Your task to perform on an android device: turn on the 24-hour format for clock Image 0: 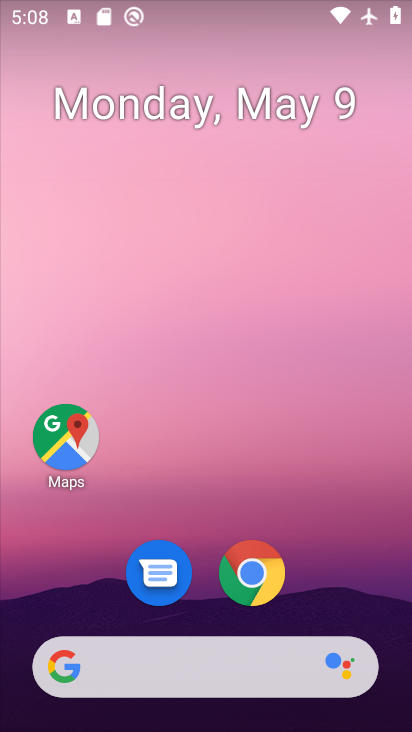
Step 0: drag from (394, 636) to (361, 70)
Your task to perform on an android device: turn on the 24-hour format for clock Image 1: 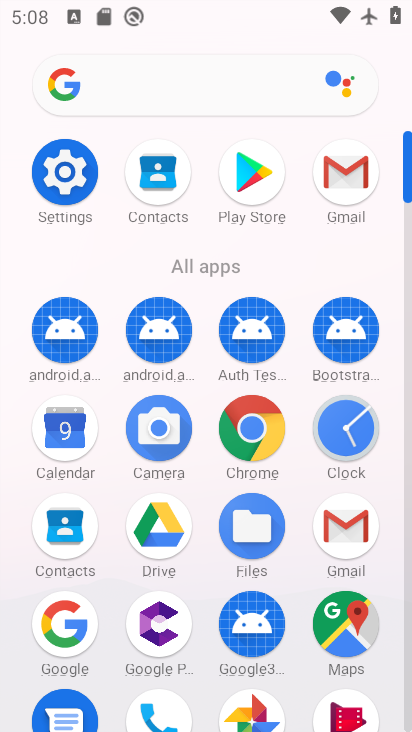
Step 1: click (406, 696)
Your task to perform on an android device: turn on the 24-hour format for clock Image 2: 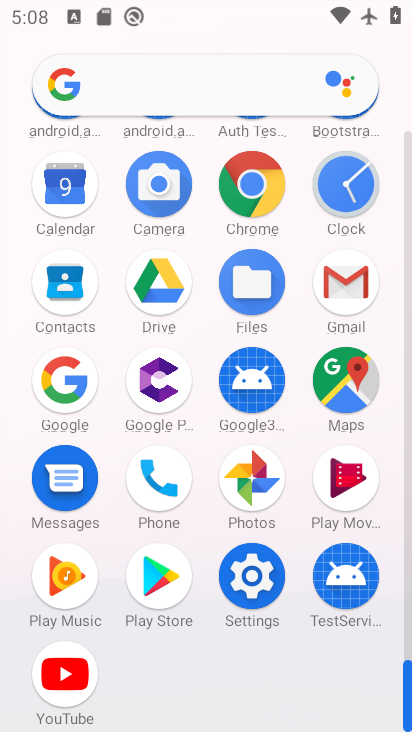
Step 2: click (340, 184)
Your task to perform on an android device: turn on the 24-hour format for clock Image 3: 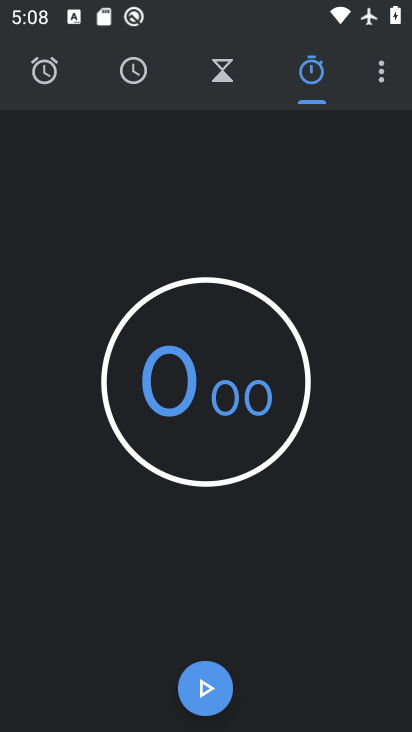
Step 3: click (380, 73)
Your task to perform on an android device: turn on the 24-hour format for clock Image 4: 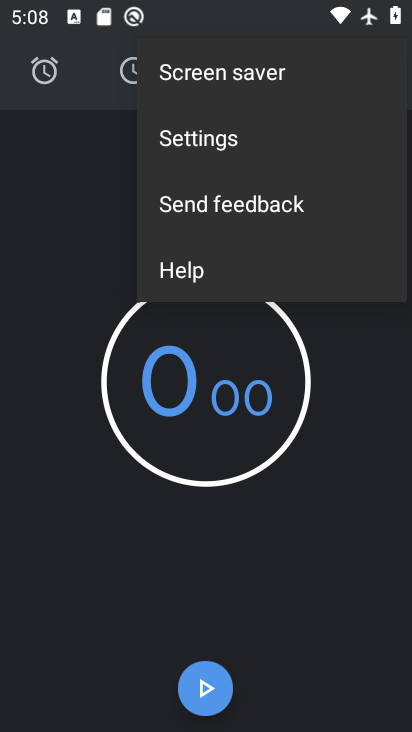
Step 4: click (196, 138)
Your task to perform on an android device: turn on the 24-hour format for clock Image 5: 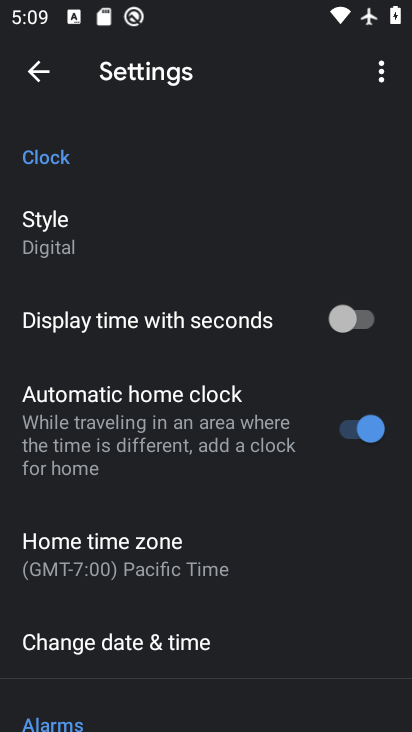
Step 5: click (203, 642)
Your task to perform on an android device: turn on the 24-hour format for clock Image 6: 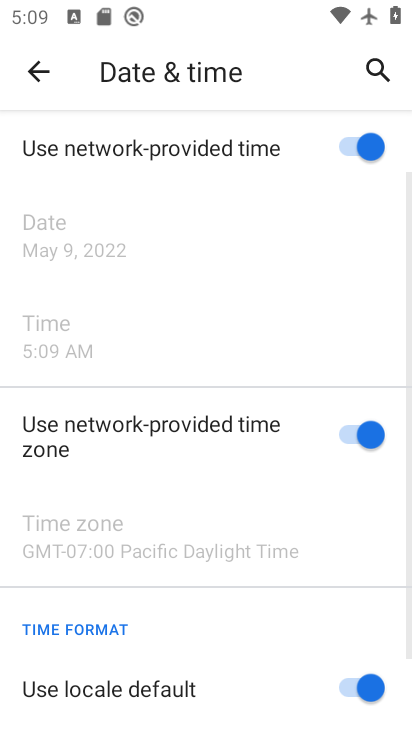
Step 6: drag from (259, 622) to (260, 329)
Your task to perform on an android device: turn on the 24-hour format for clock Image 7: 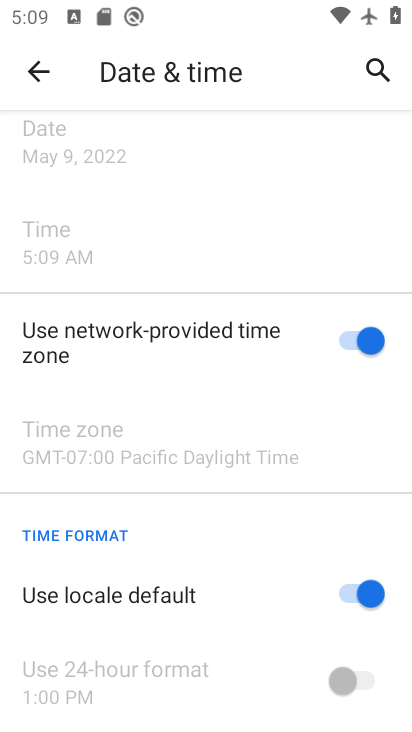
Step 7: click (343, 593)
Your task to perform on an android device: turn on the 24-hour format for clock Image 8: 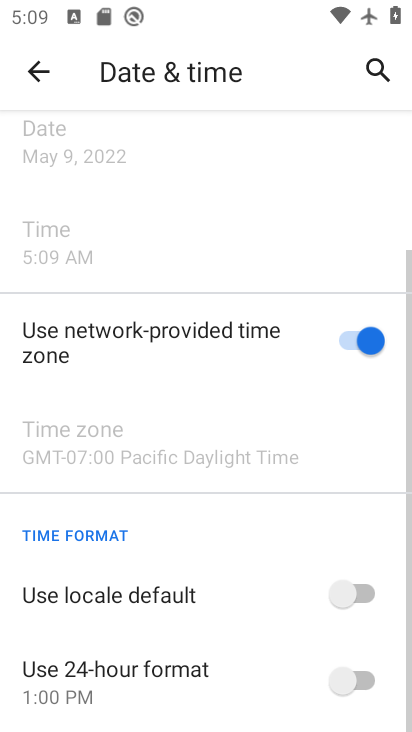
Step 8: click (364, 681)
Your task to perform on an android device: turn on the 24-hour format for clock Image 9: 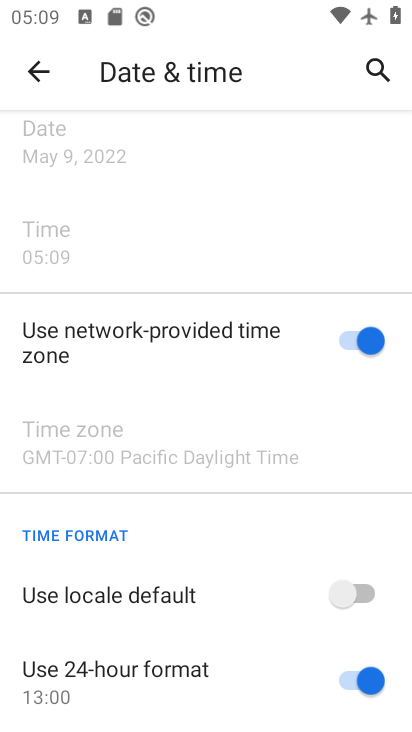
Step 9: task complete